Your task to perform on an android device: Go to display settings Image 0: 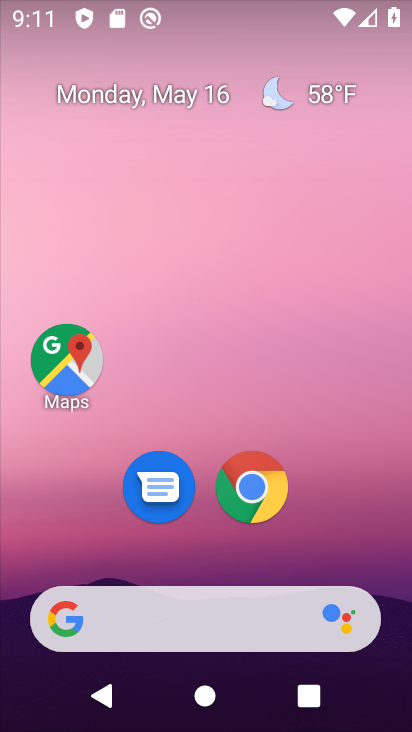
Step 0: drag from (226, 541) to (293, 151)
Your task to perform on an android device: Go to display settings Image 1: 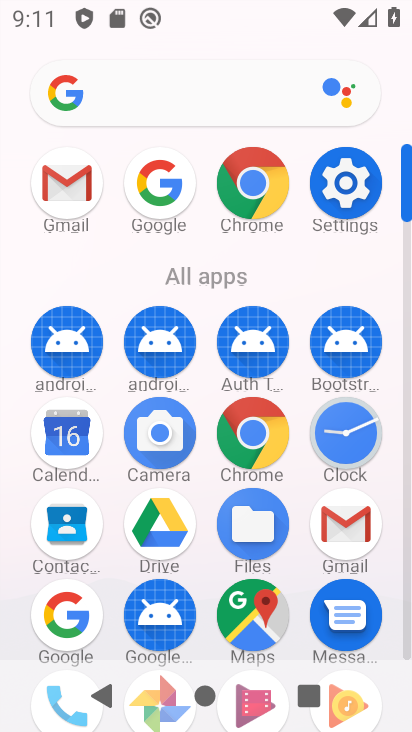
Step 1: click (348, 182)
Your task to perform on an android device: Go to display settings Image 2: 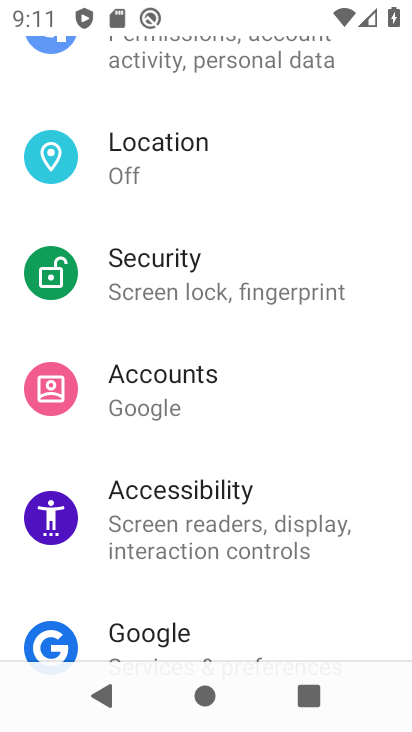
Step 2: drag from (207, 247) to (229, 553)
Your task to perform on an android device: Go to display settings Image 3: 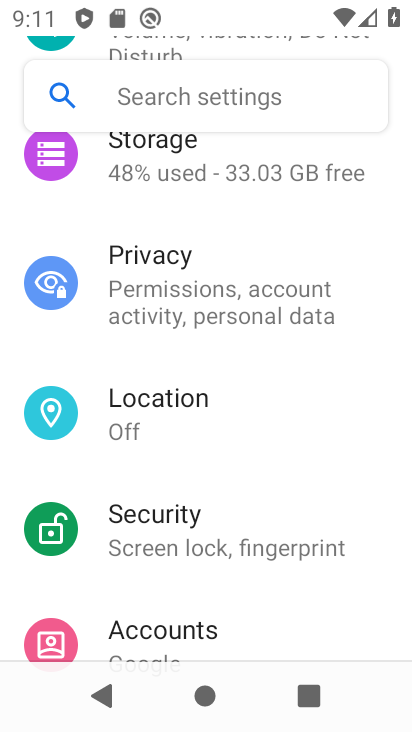
Step 3: drag from (203, 239) to (231, 537)
Your task to perform on an android device: Go to display settings Image 4: 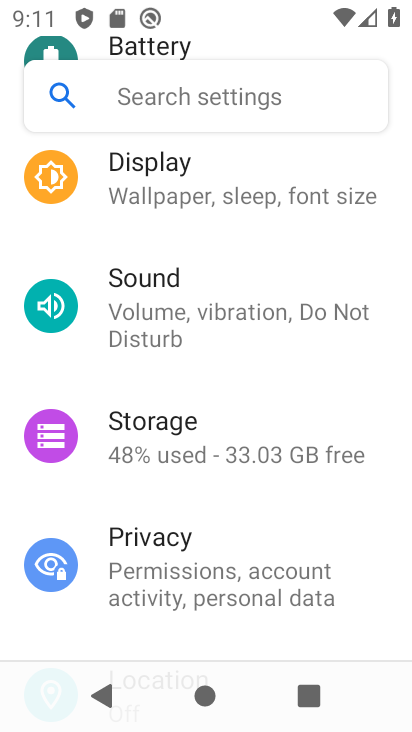
Step 4: drag from (197, 225) to (205, 337)
Your task to perform on an android device: Go to display settings Image 5: 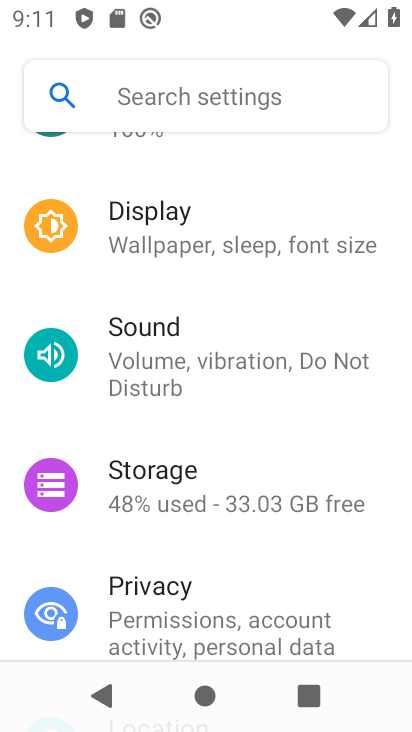
Step 5: click (157, 232)
Your task to perform on an android device: Go to display settings Image 6: 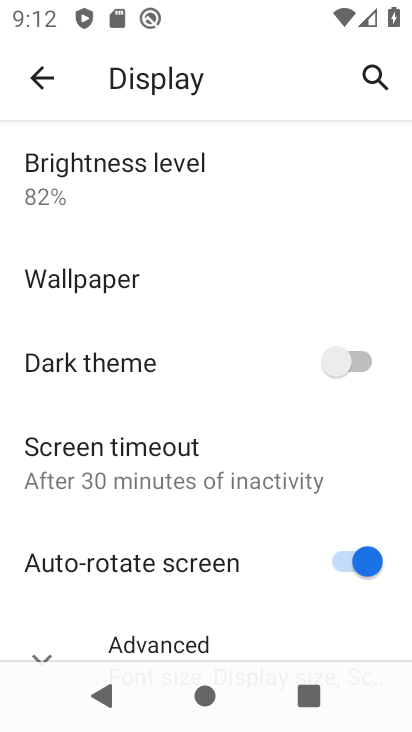
Step 6: task complete